Your task to perform on an android device: open chrome and create a bookmark for the current page Image 0: 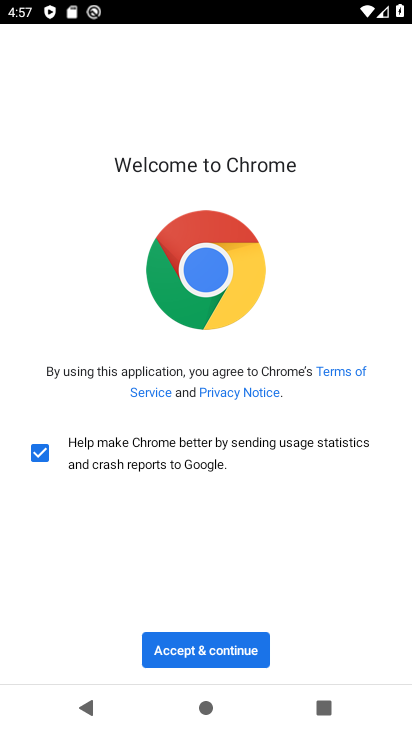
Step 0: click (205, 645)
Your task to perform on an android device: open chrome and create a bookmark for the current page Image 1: 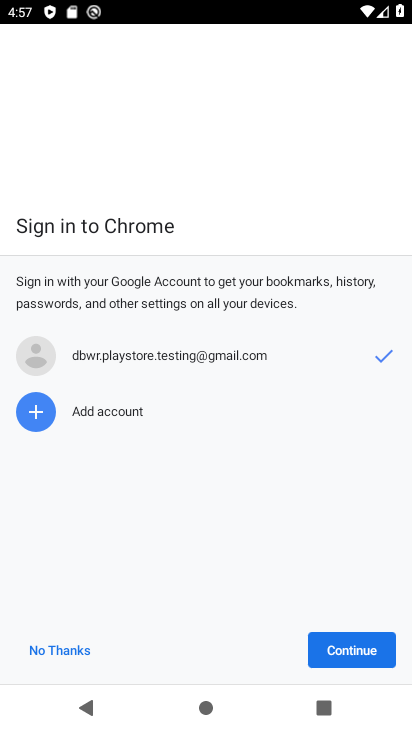
Step 1: click (350, 658)
Your task to perform on an android device: open chrome and create a bookmark for the current page Image 2: 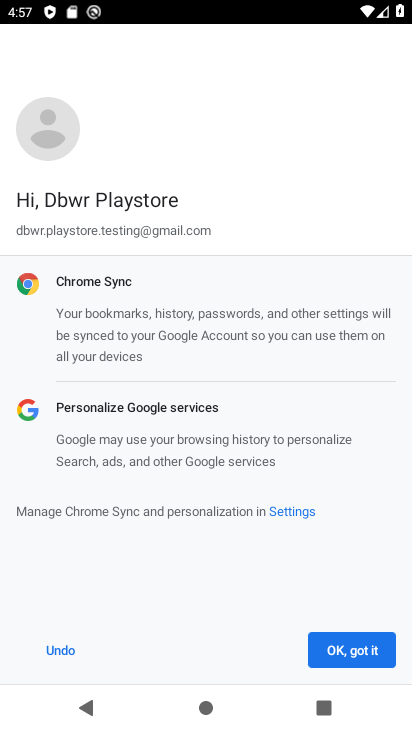
Step 2: click (351, 657)
Your task to perform on an android device: open chrome and create a bookmark for the current page Image 3: 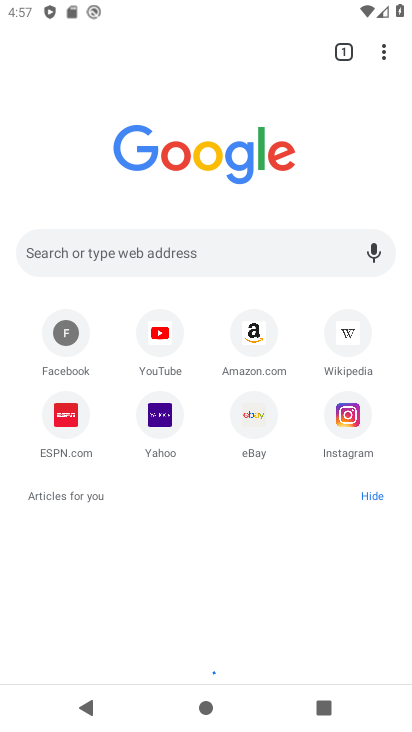
Step 3: task complete